Your task to perform on an android device: Search for flights from Mexico city to Boston Image 0: 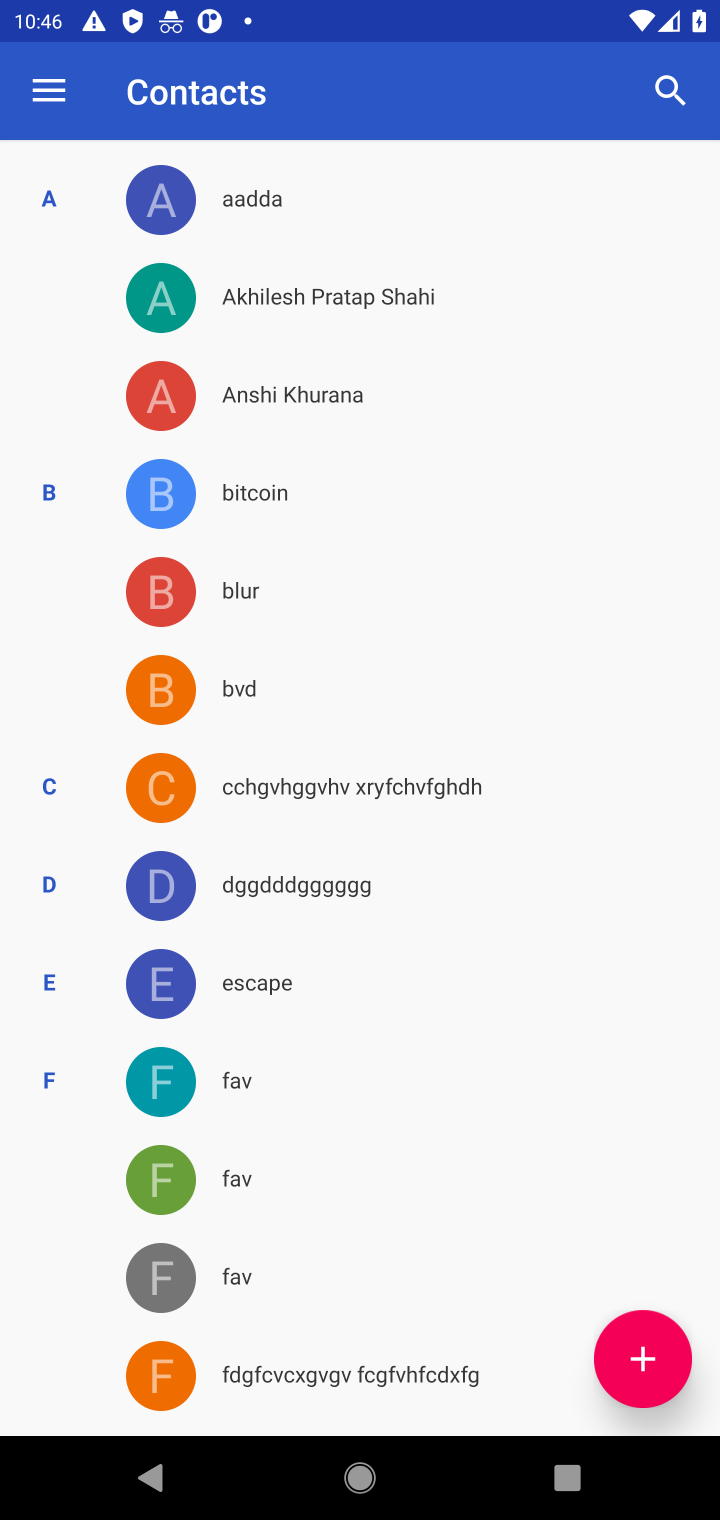
Step 0: press home button
Your task to perform on an android device: Search for flights from Mexico city to Boston Image 1: 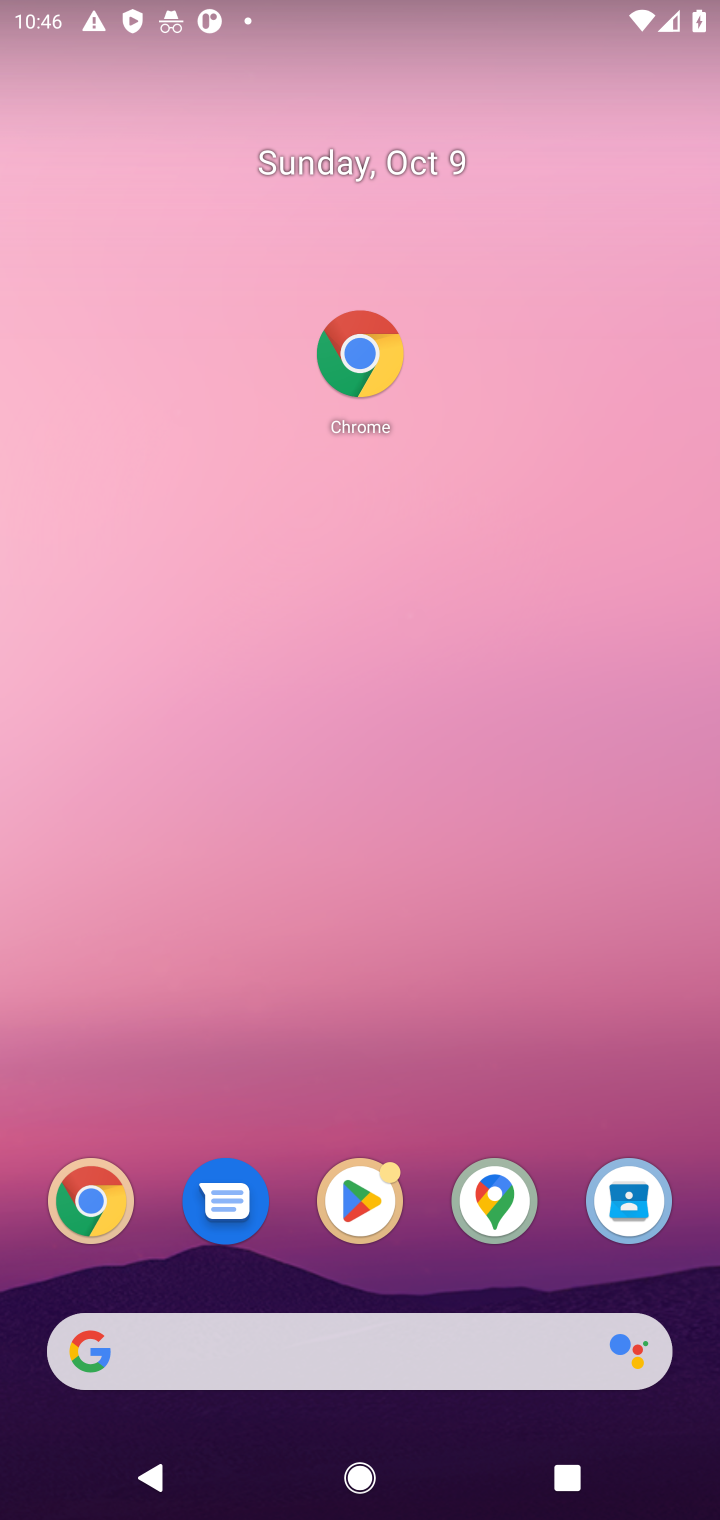
Step 1: click (73, 1200)
Your task to perform on an android device: Search for flights from Mexico city to Boston Image 2: 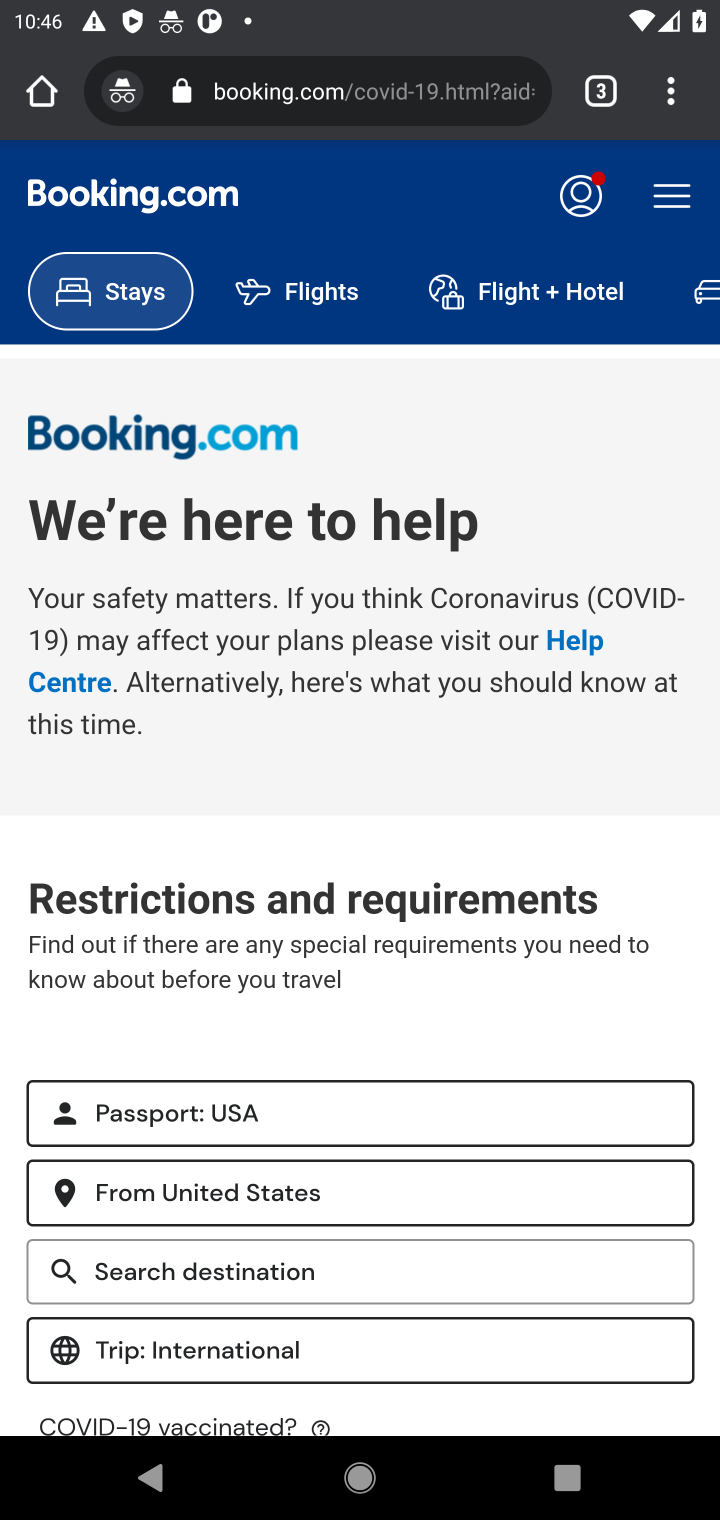
Step 2: click (332, 73)
Your task to perform on an android device: Search for flights from Mexico city to Boston Image 3: 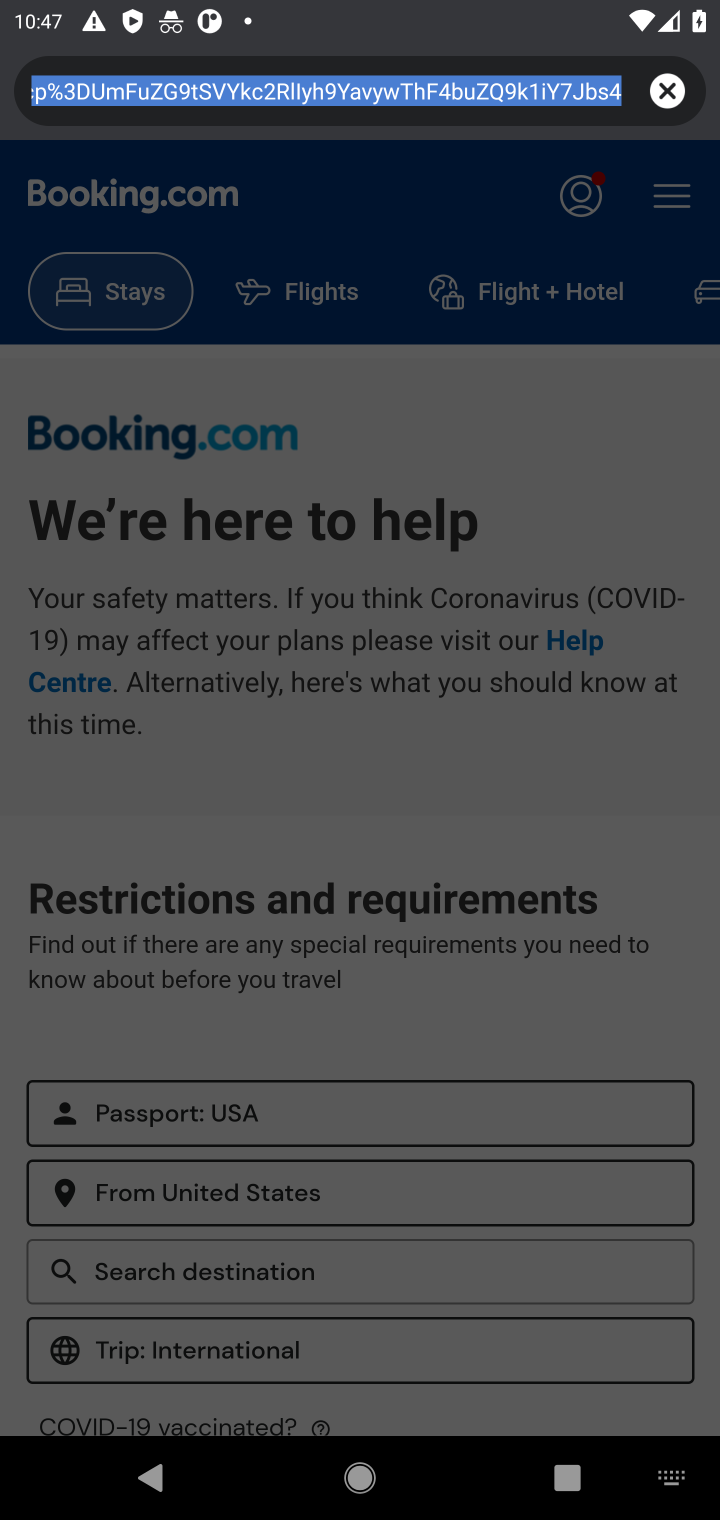
Step 3: type "flight from mexico city to boston"
Your task to perform on an android device: Search for flights from Mexico city to Boston Image 4: 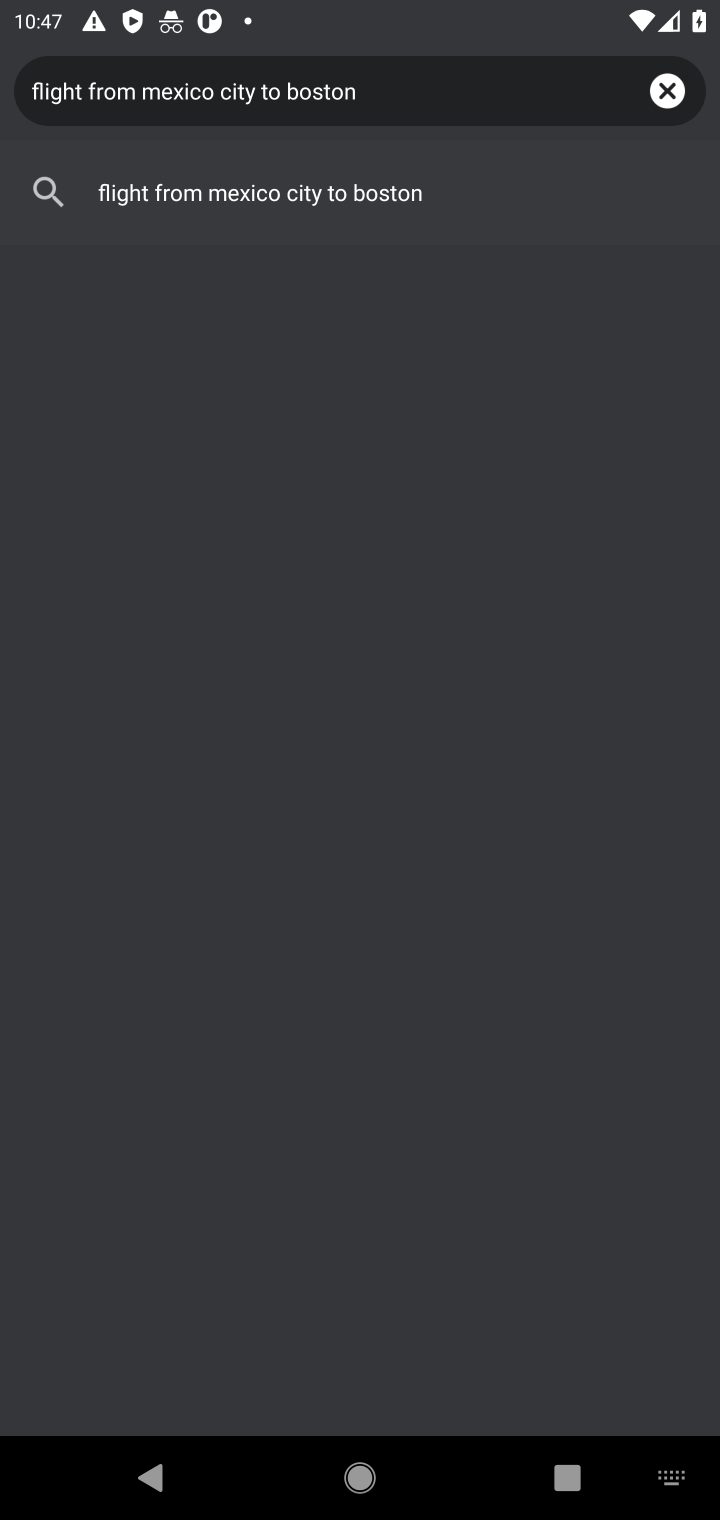
Step 4: click (267, 106)
Your task to perform on an android device: Search for flights from Mexico city to Boston Image 5: 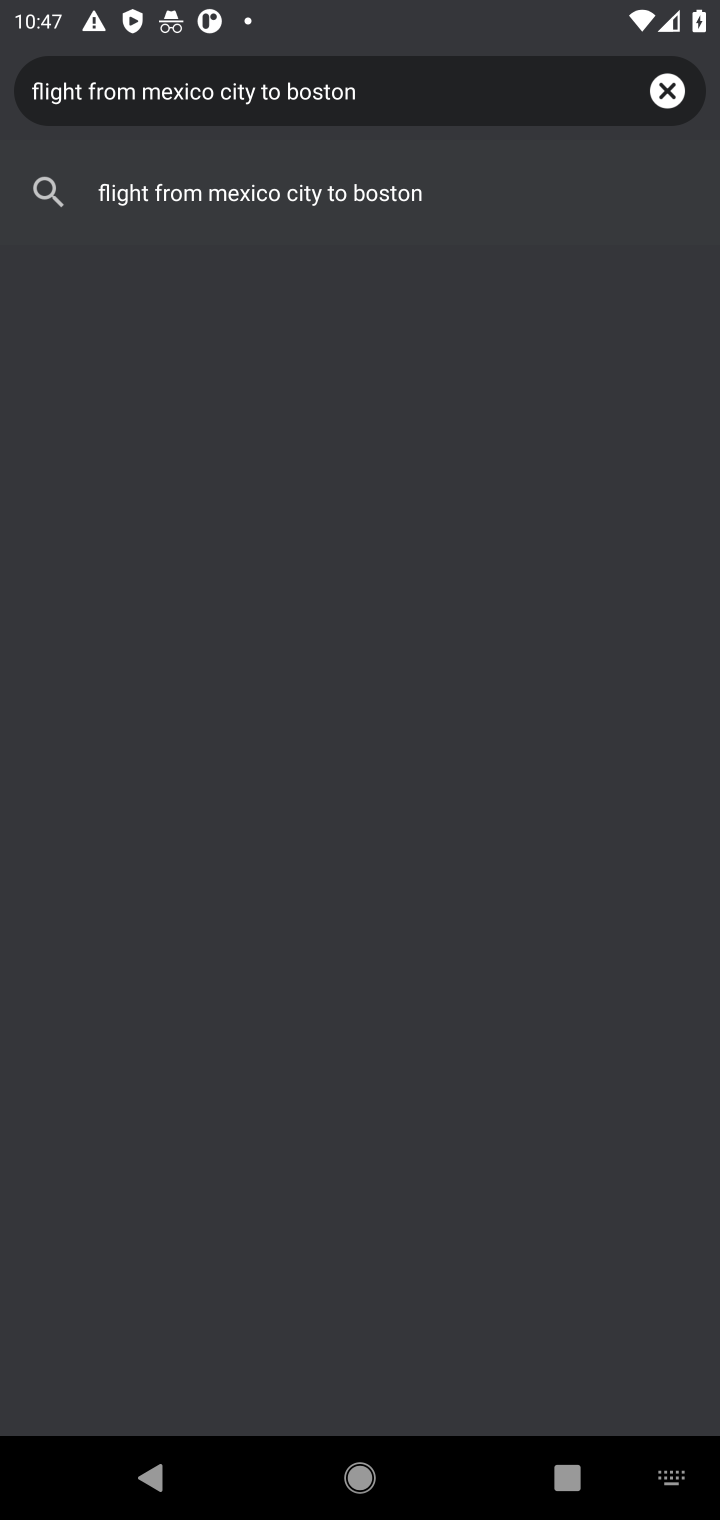
Step 5: click (301, 207)
Your task to perform on an android device: Search for flights from Mexico city to Boston Image 6: 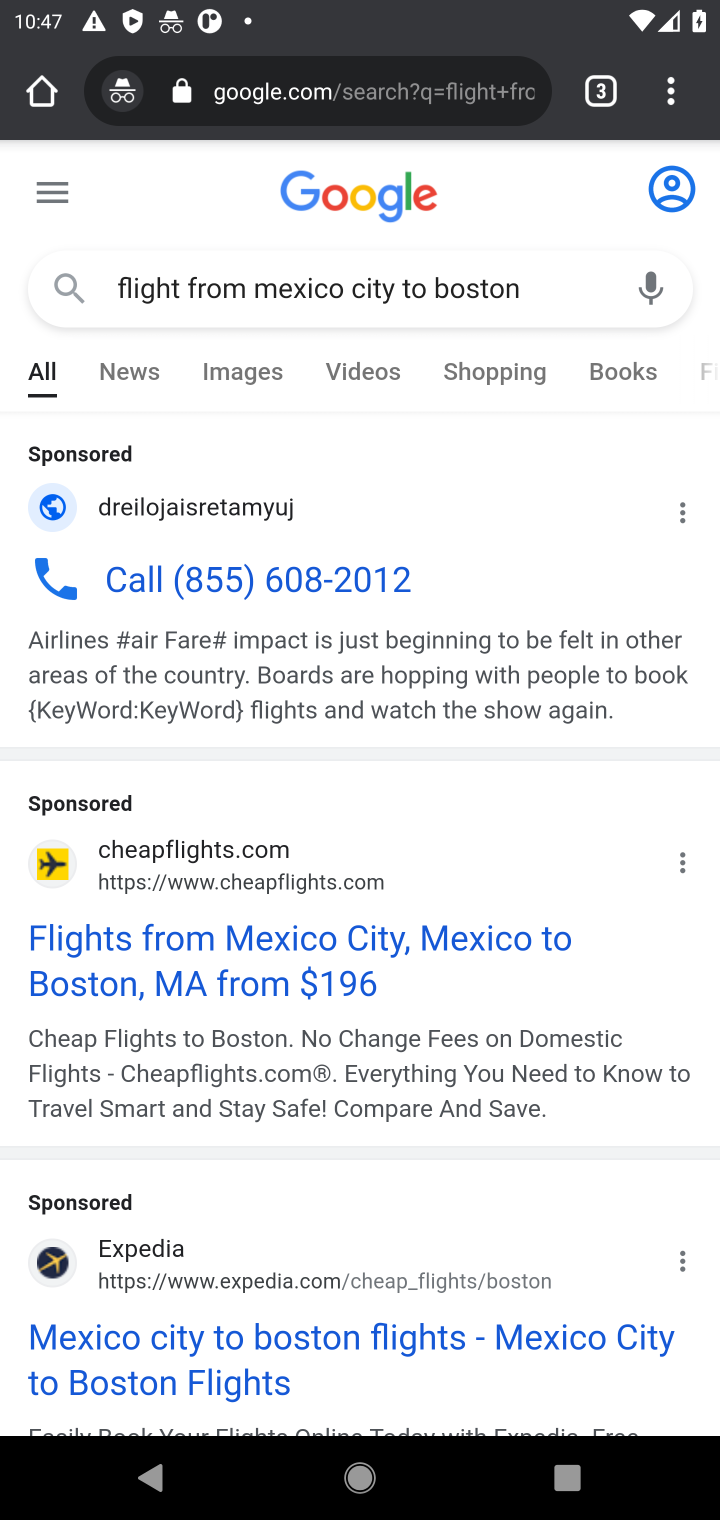
Step 6: click (478, 960)
Your task to perform on an android device: Search for flights from Mexico city to Boston Image 7: 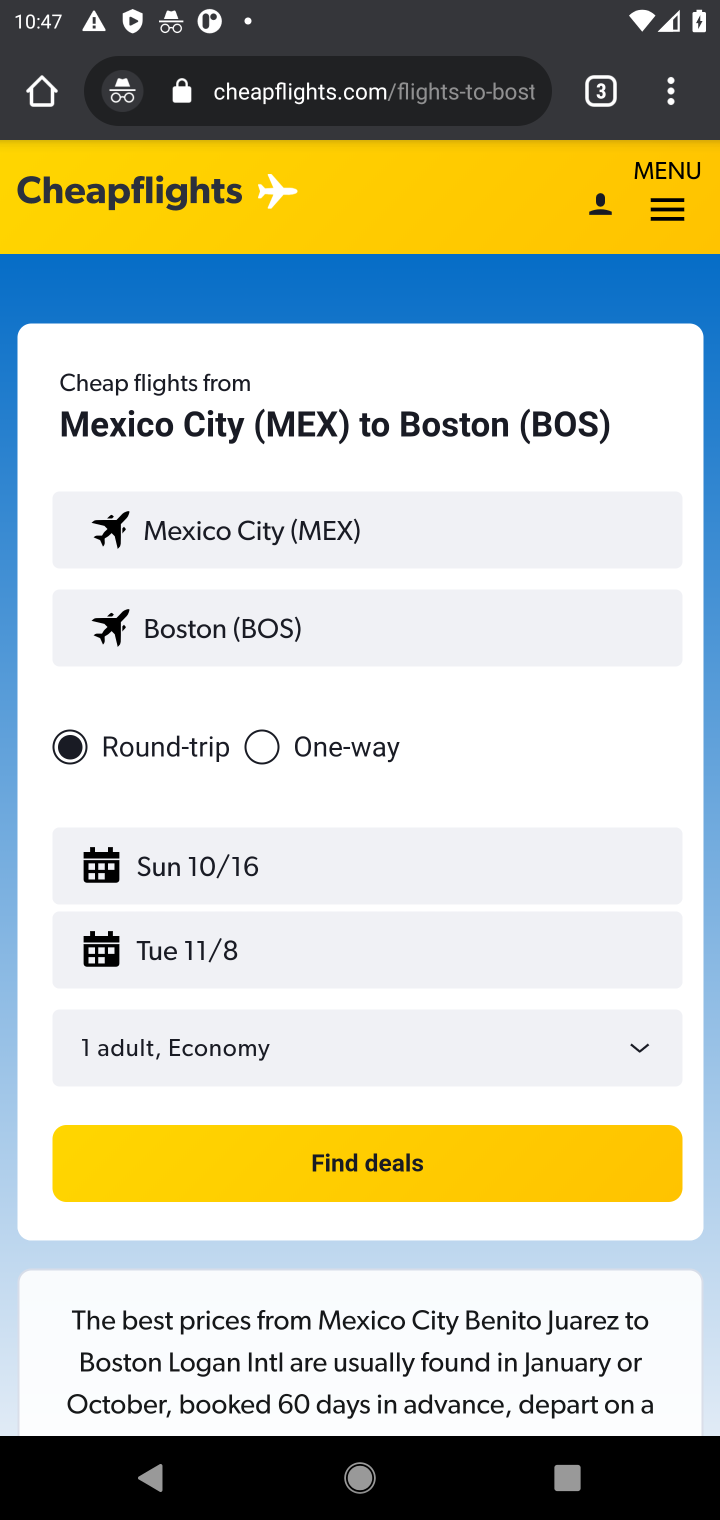
Step 7: task complete